Your task to perform on an android device: Go to eBay Image 0: 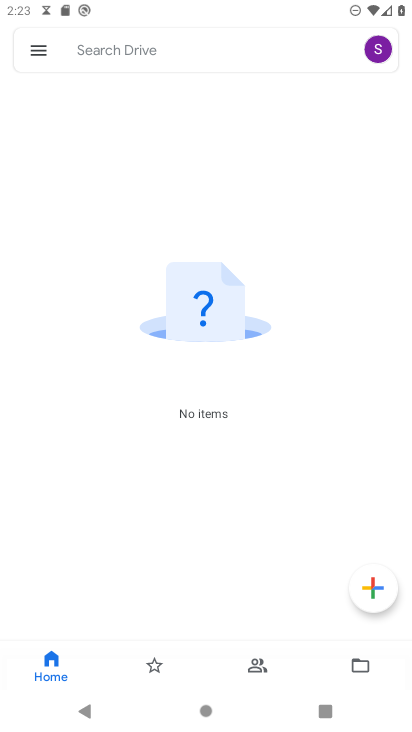
Step 0: press home button
Your task to perform on an android device: Go to eBay Image 1: 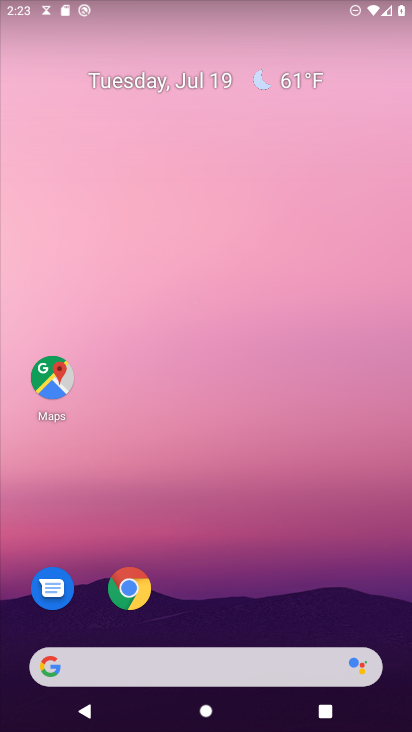
Step 1: drag from (219, 668) to (166, 292)
Your task to perform on an android device: Go to eBay Image 2: 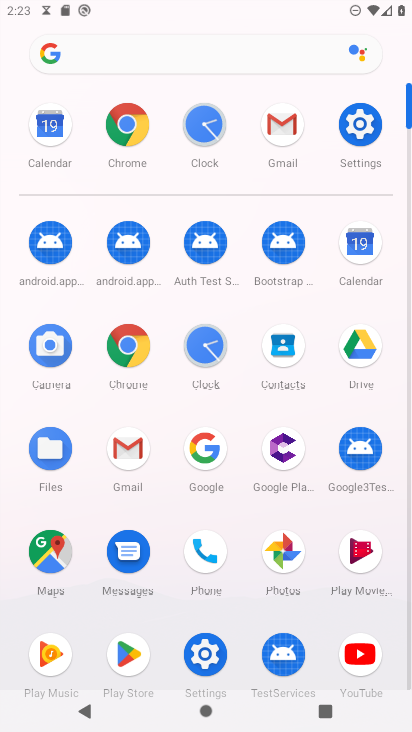
Step 2: click (118, 133)
Your task to perform on an android device: Go to eBay Image 3: 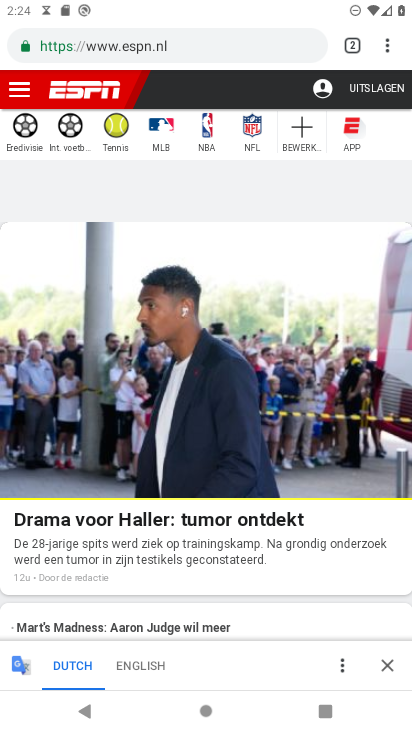
Step 3: click (203, 48)
Your task to perform on an android device: Go to eBay Image 4: 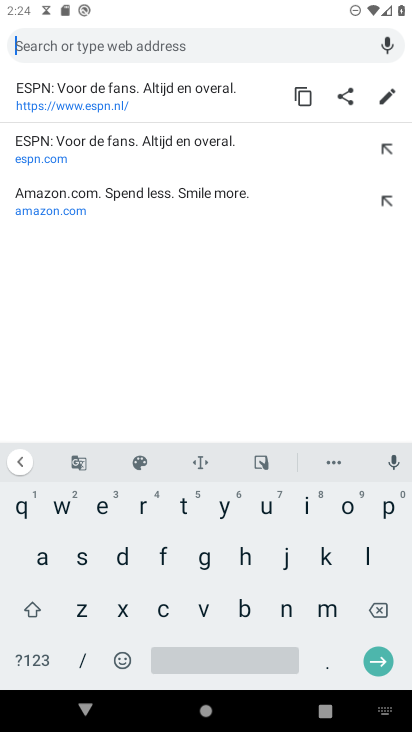
Step 4: click (103, 509)
Your task to perform on an android device: Go to eBay Image 5: 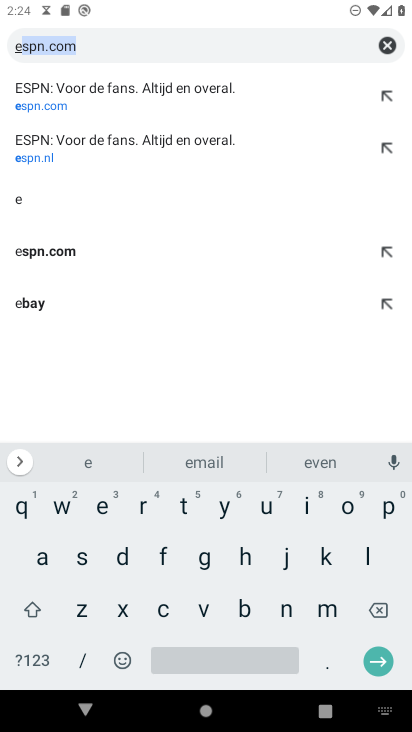
Step 5: click (46, 302)
Your task to perform on an android device: Go to eBay Image 6: 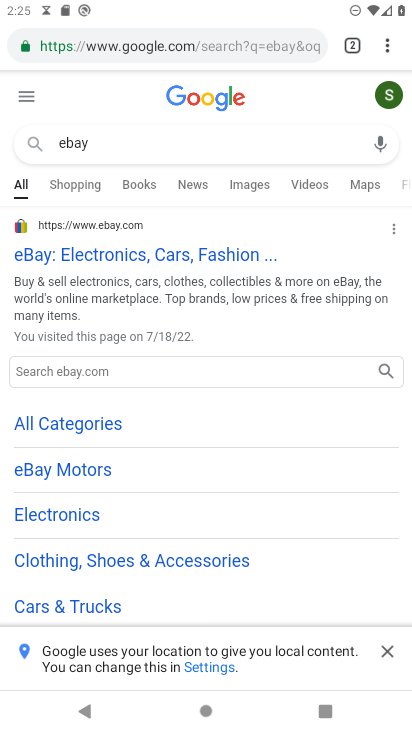
Step 6: click (90, 250)
Your task to perform on an android device: Go to eBay Image 7: 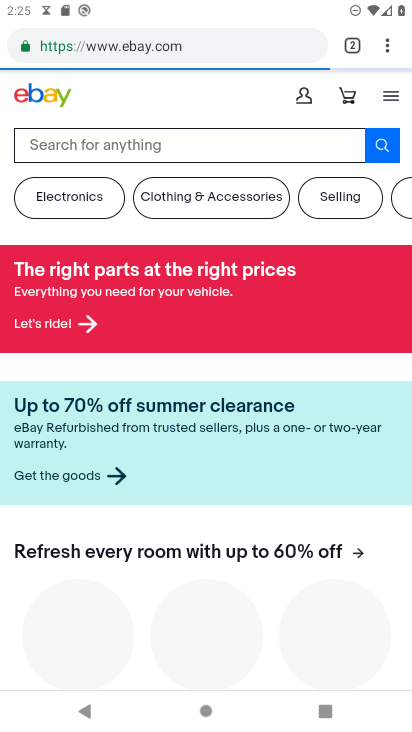
Step 7: task complete